Your task to perform on an android device: What is the news today? Image 0: 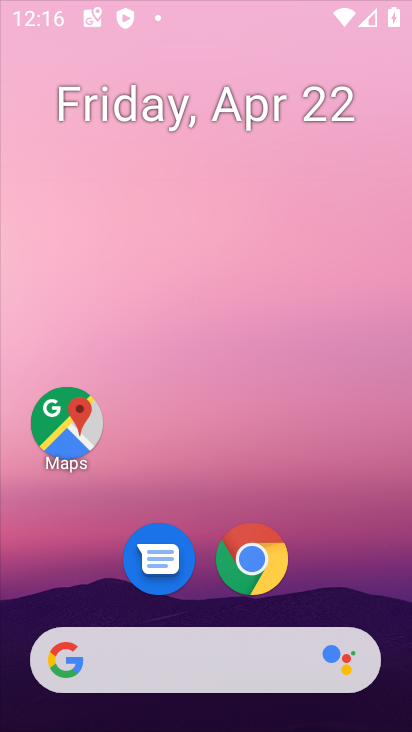
Step 0: drag from (325, 591) to (278, 69)
Your task to perform on an android device: What is the news today? Image 1: 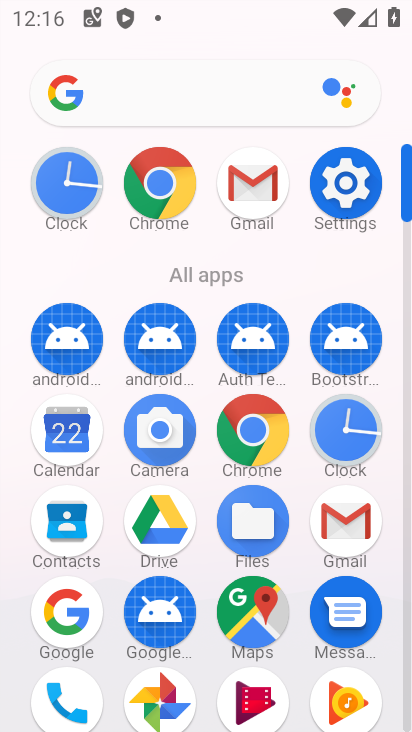
Step 1: click (64, 617)
Your task to perform on an android device: What is the news today? Image 2: 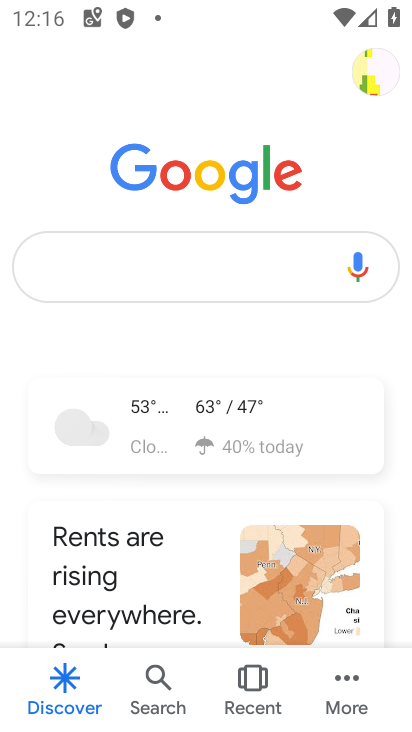
Step 2: click (197, 276)
Your task to perform on an android device: What is the news today? Image 3: 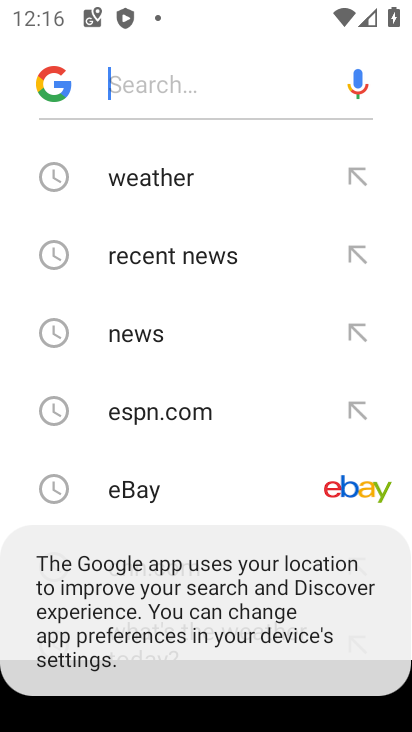
Step 3: click (137, 341)
Your task to perform on an android device: What is the news today? Image 4: 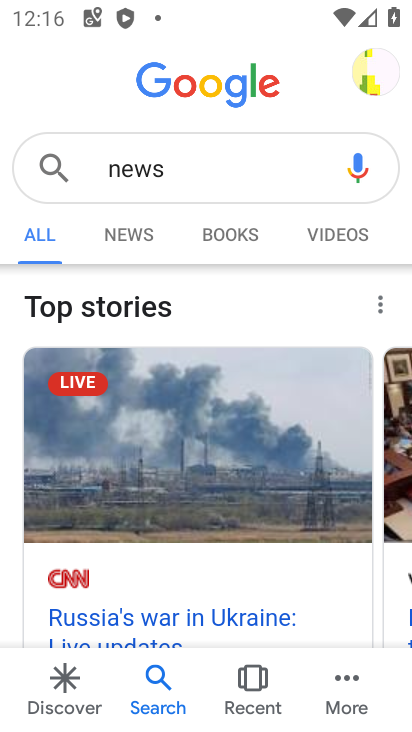
Step 4: task complete